Your task to perform on an android device: Show the shopping cart on ebay.com. Add "logitech g pro" to the cart on ebay.com, then select checkout. Image 0: 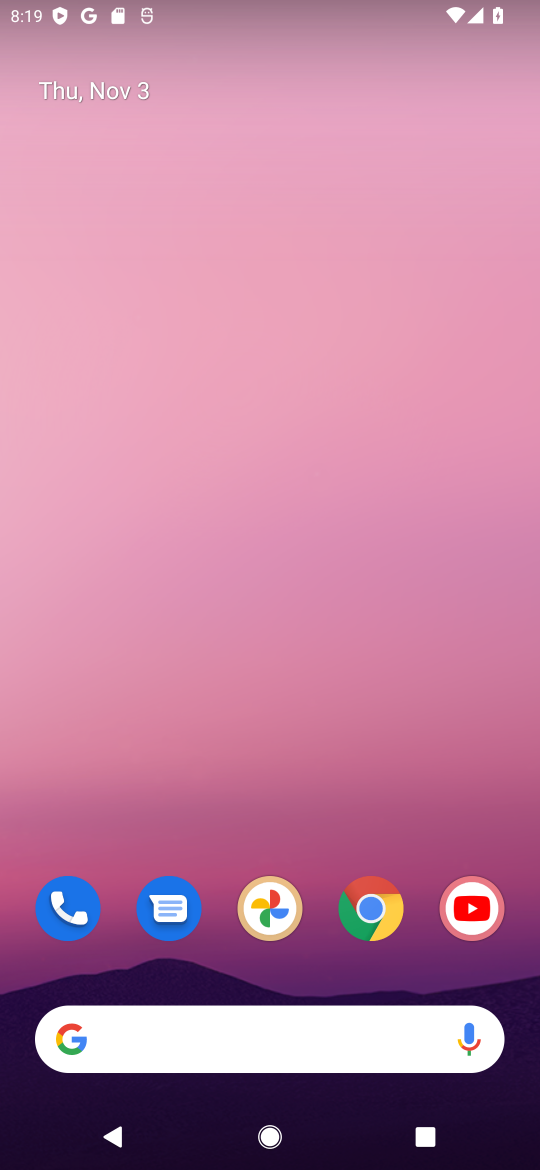
Step 0: click (383, 895)
Your task to perform on an android device: Show the shopping cart on ebay.com. Add "logitech g pro" to the cart on ebay.com, then select checkout. Image 1: 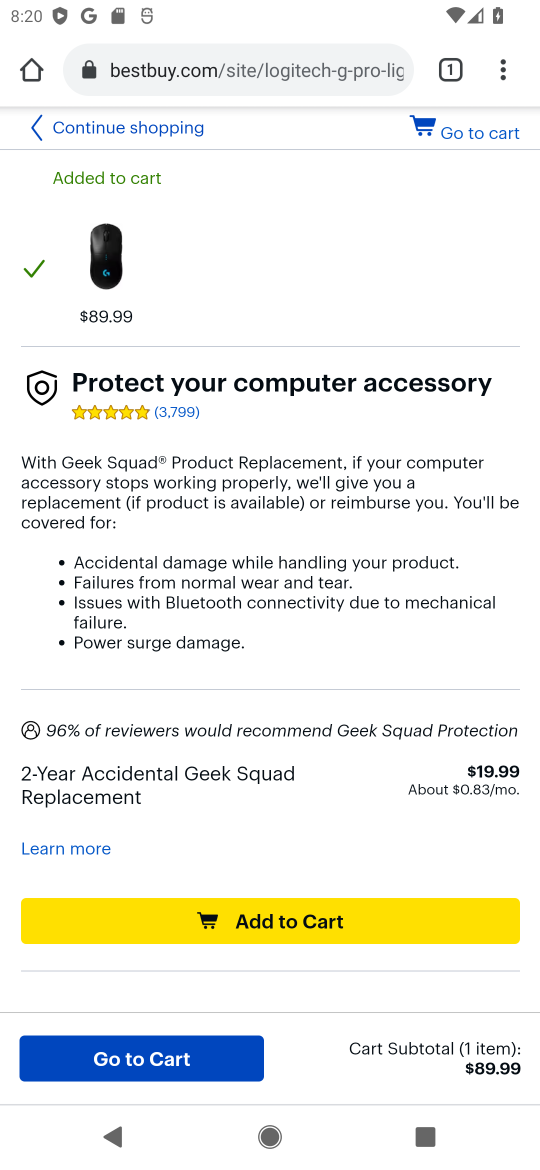
Step 1: click (257, 69)
Your task to perform on an android device: Show the shopping cart on ebay.com. Add "logitech g pro" to the cart on ebay.com, then select checkout. Image 2: 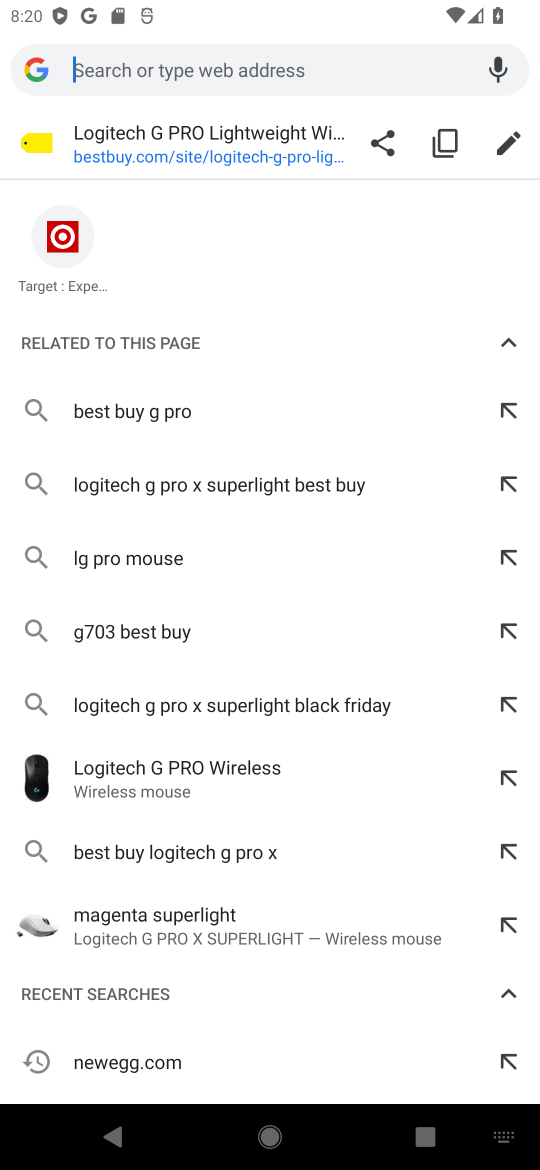
Step 2: type "ebay.com"
Your task to perform on an android device: Show the shopping cart on ebay.com. Add "logitech g pro" to the cart on ebay.com, then select checkout. Image 3: 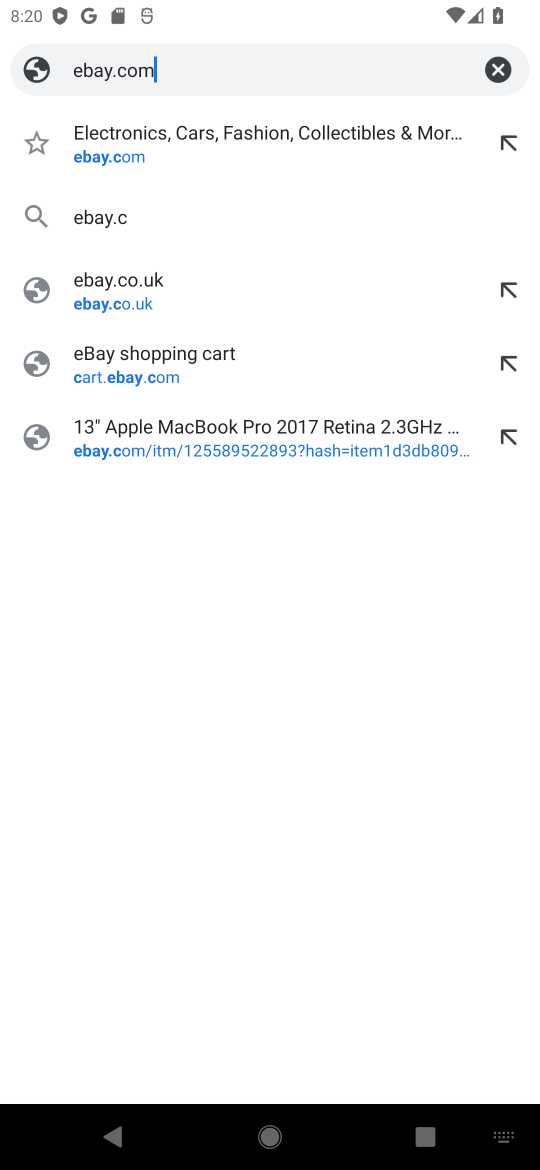
Step 3: press enter
Your task to perform on an android device: Show the shopping cart on ebay.com. Add "logitech g pro" to the cart on ebay.com, then select checkout. Image 4: 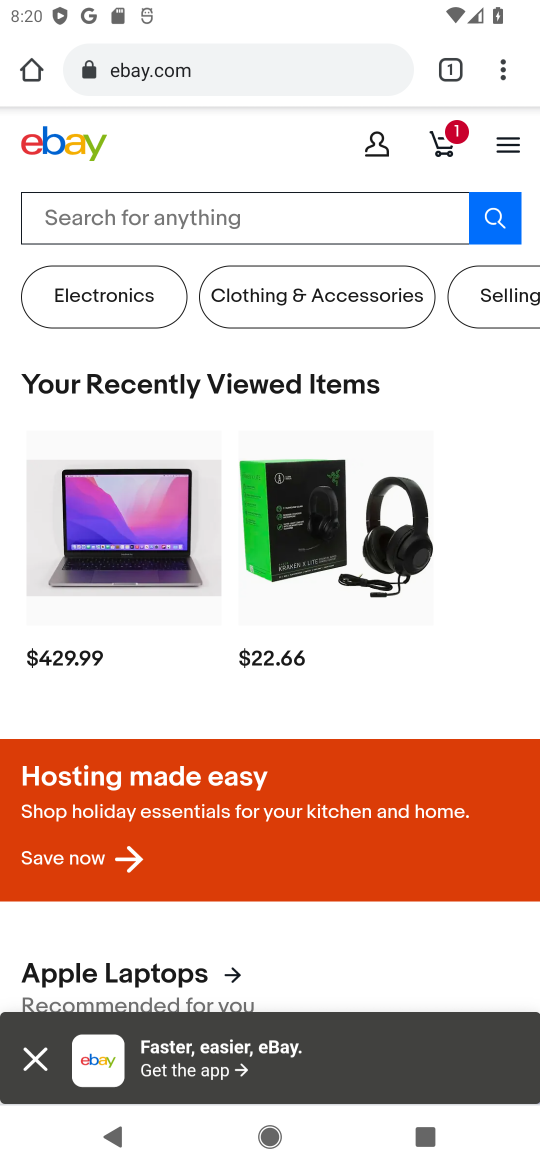
Step 4: click (443, 148)
Your task to perform on an android device: Show the shopping cart on ebay.com. Add "logitech g pro" to the cart on ebay.com, then select checkout. Image 5: 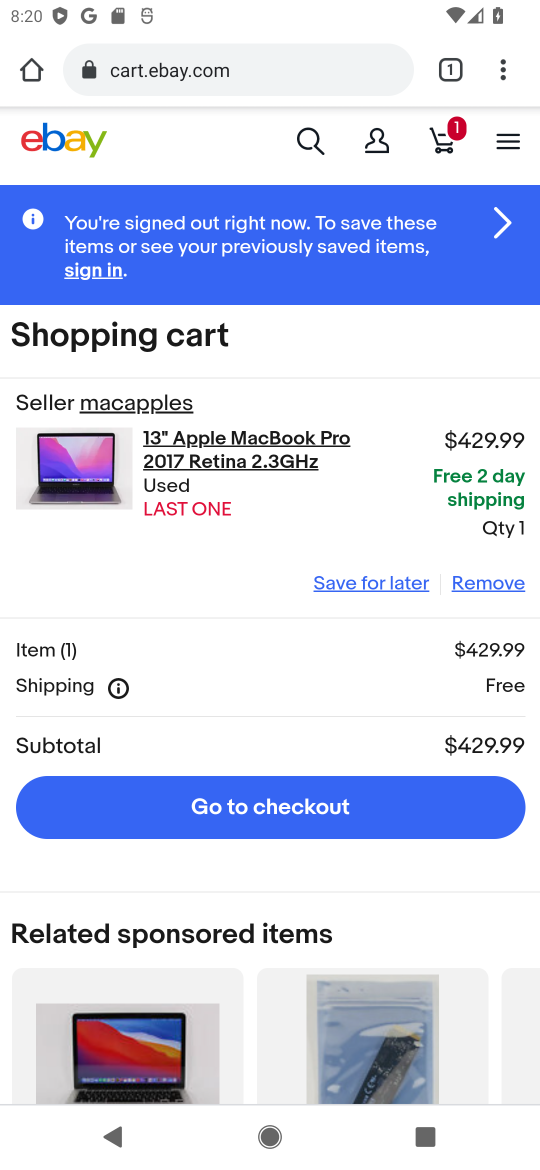
Step 5: click (303, 138)
Your task to perform on an android device: Show the shopping cart on ebay.com. Add "logitech g pro" to the cart on ebay.com, then select checkout. Image 6: 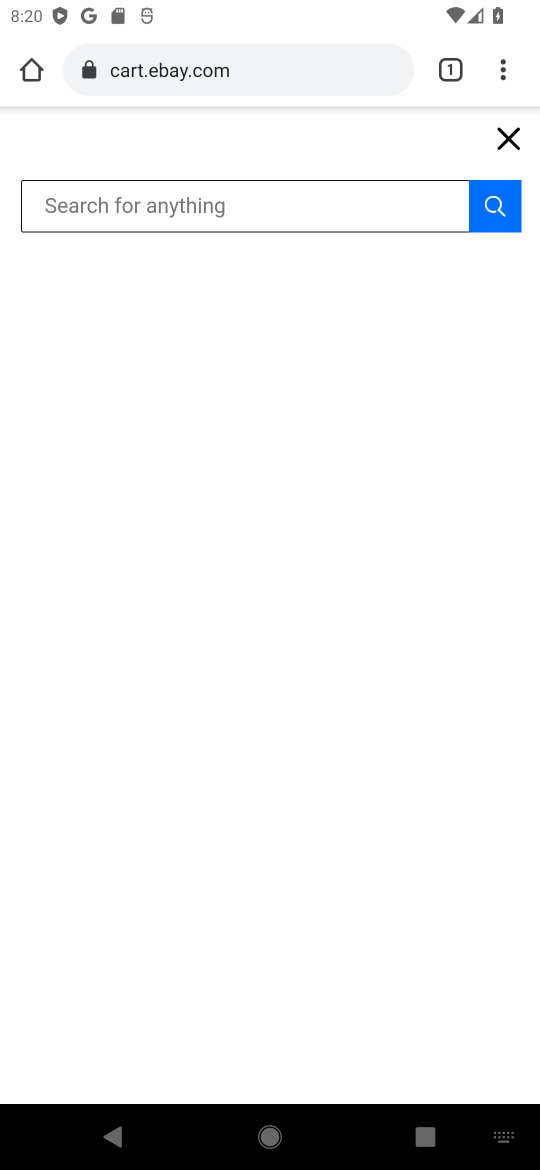
Step 6: type "logitech g pro"
Your task to perform on an android device: Show the shopping cart on ebay.com. Add "logitech g pro" to the cart on ebay.com, then select checkout. Image 7: 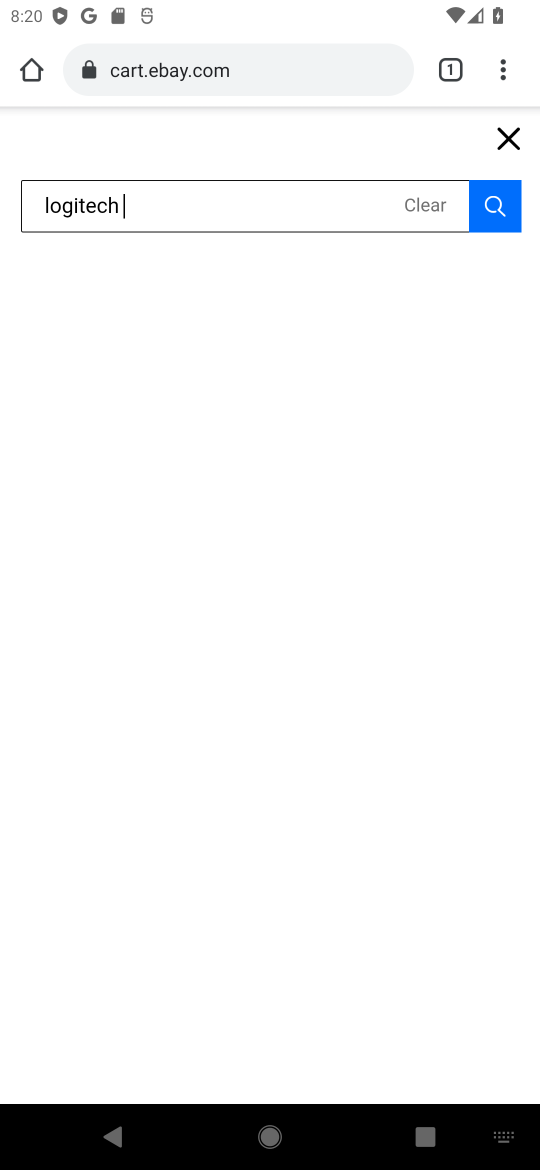
Step 7: press enter
Your task to perform on an android device: Show the shopping cart on ebay.com. Add "logitech g pro" to the cart on ebay.com, then select checkout. Image 8: 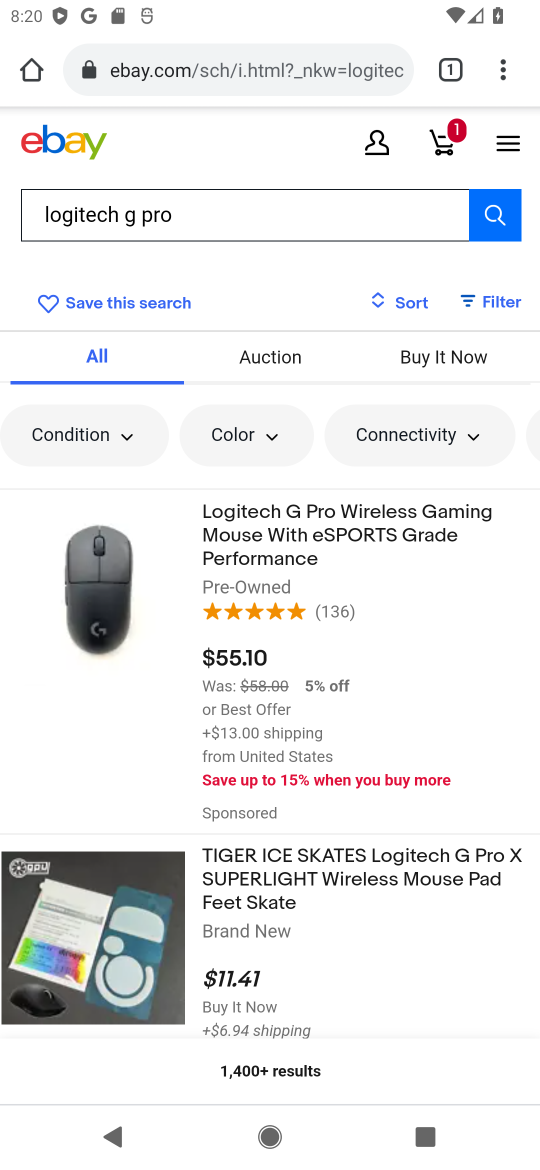
Step 8: click (109, 635)
Your task to perform on an android device: Show the shopping cart on ebay.com. Add "logitech g pro" to the cart on ebay.com, then select checkout. Image 9: 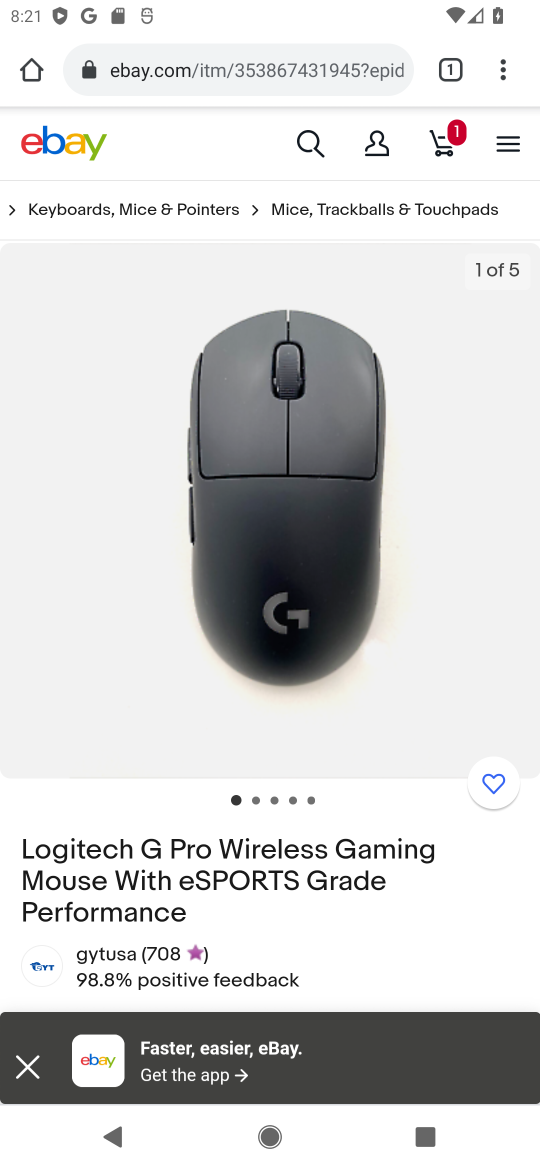
Step 9: drag from (411, 915) to (359, 560)
Your task to perform on an android device: Show the shopping cart on ebay.com. Add "logitech g pro" to the cart on ebay.com, then select checkout. Image 10: 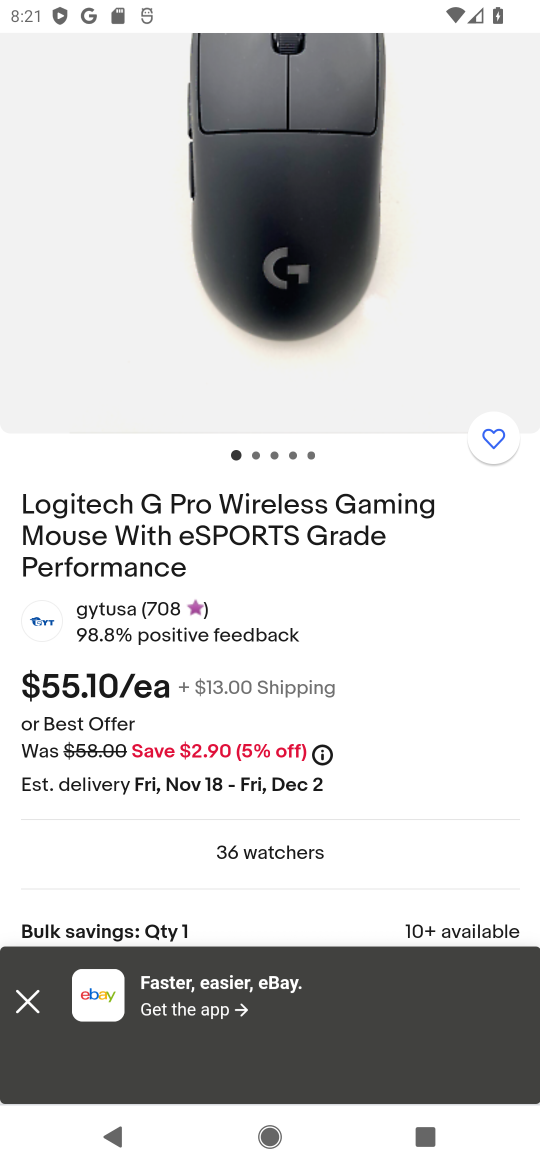
Step 10: drag from (398, 765) to (352, 525)
Your task to perform on an android device: Show the shopping cart on ebay.com. Add "logitech g pro" to the cart on ebay.com, then select checkout. Image 11: 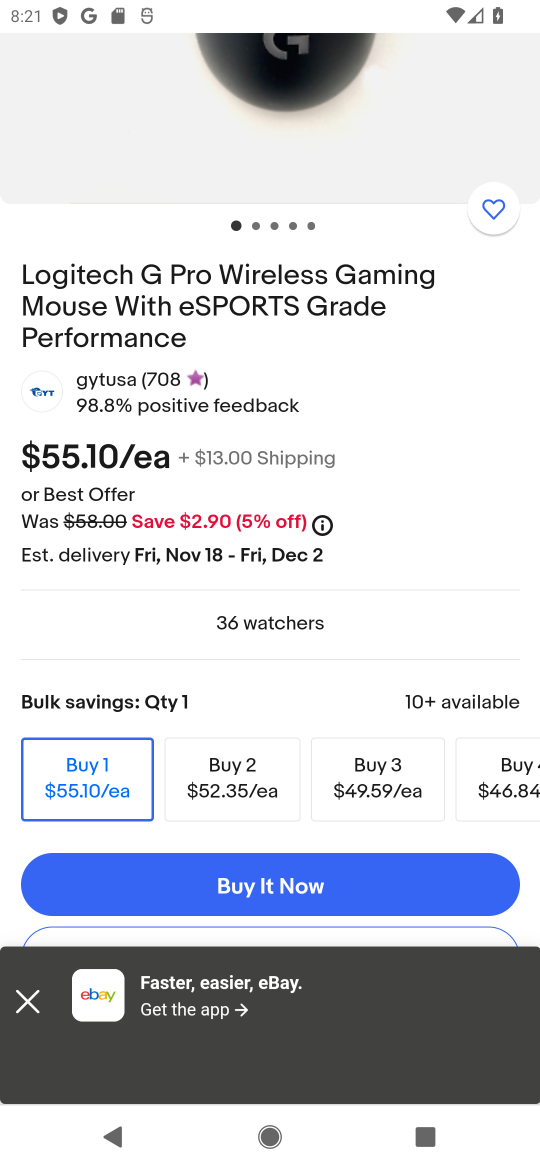
Step 11: drag from (376, 709) to (346, 281)
Your task to perform on an android device: Show the shopping cart on ebay.com. Add "logitech g pro" to the cart on ebay.com, then select checkout. Image 12: 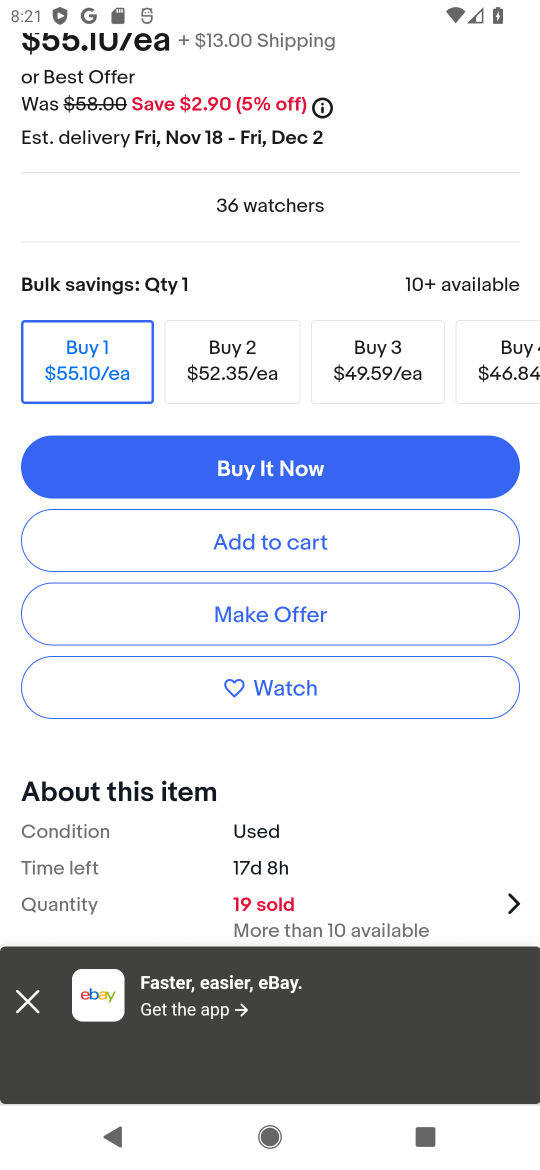
Step 12: click (259, 537)
Your task to perform on an android device: Show the shopping cart on ebay.com. Add "logitech g pro" to the cart on ebay.com, then select checkout. Image 13: 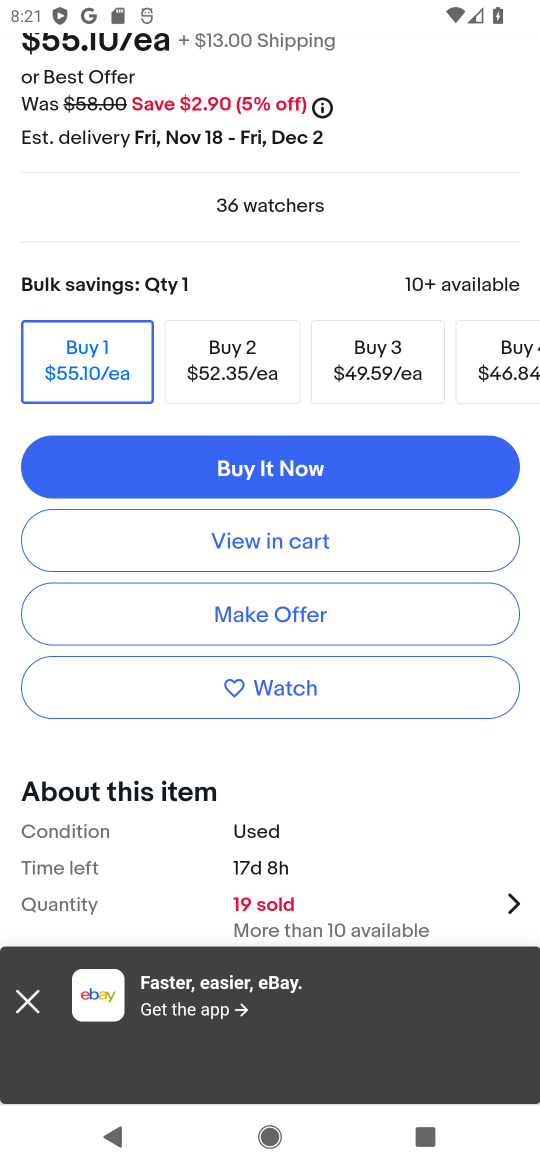
Step 13: click (287, 545)
Your task to perform on an android device: Show the shopping cart on ebay.com. Add "logitech g pro" to the cart on ebay.com, then select checkout. Image 14: 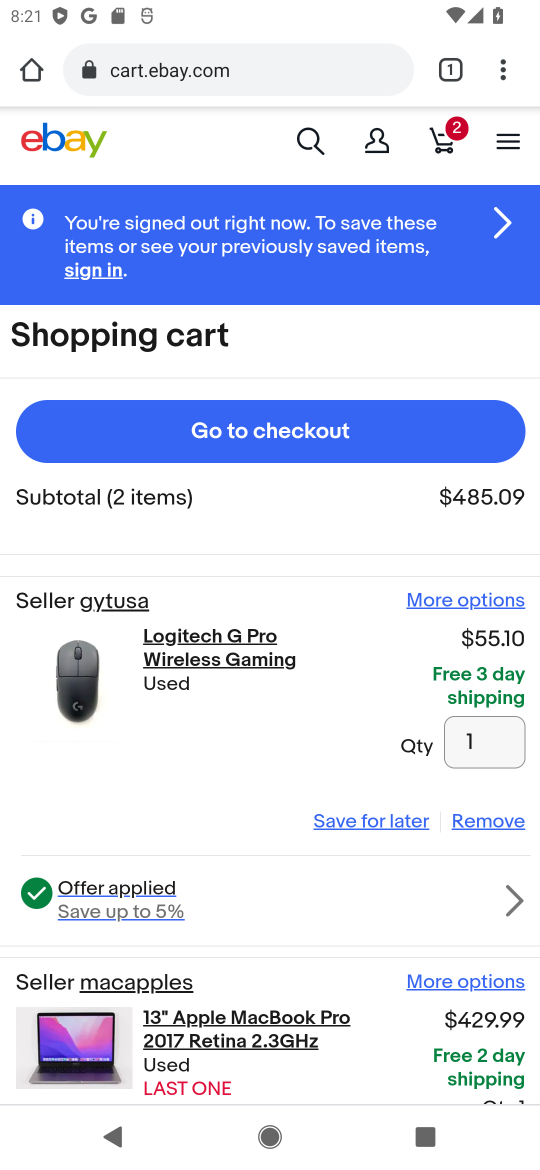
Step 14: click (296, 434)
Your task to perform on an android device: Show the shopping cart on ebay.com. Add "logitech g pro" to the cart on ebay.com, then select checkout. Image 15: 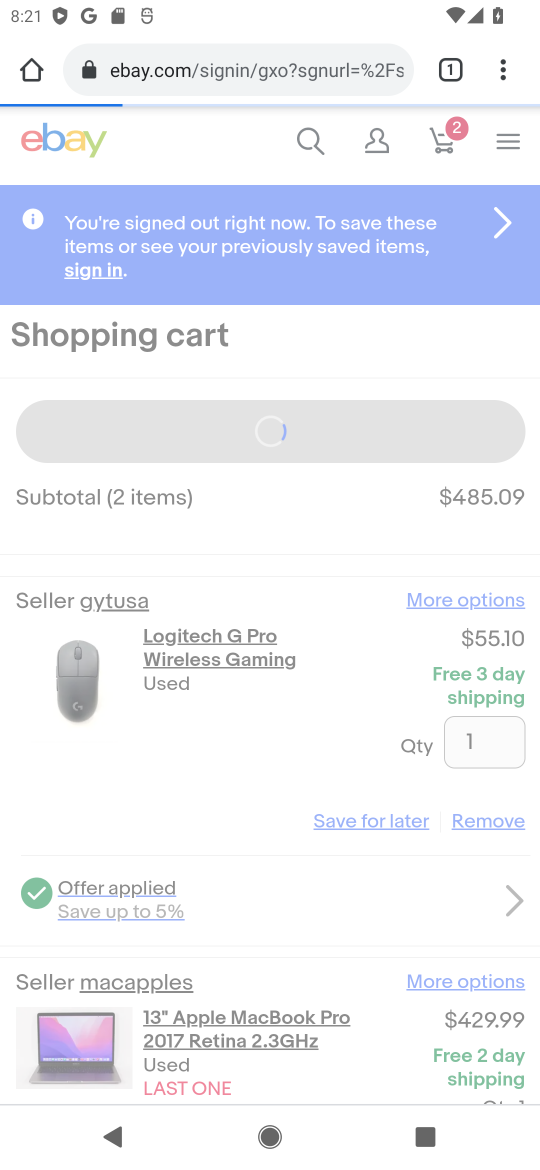
Step 15: task complete